Your task to perform on an android device: turn on the 12-hour format for clock Image 0: 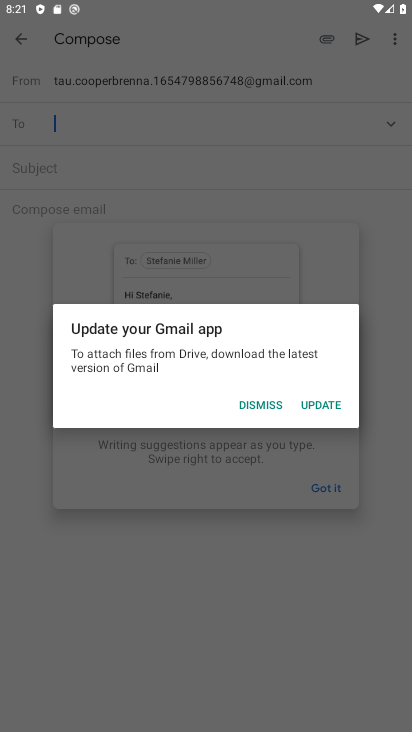
Step 0: press home button
Your task to perform on an android device: turn on the 12-hour format for clock Image 1: 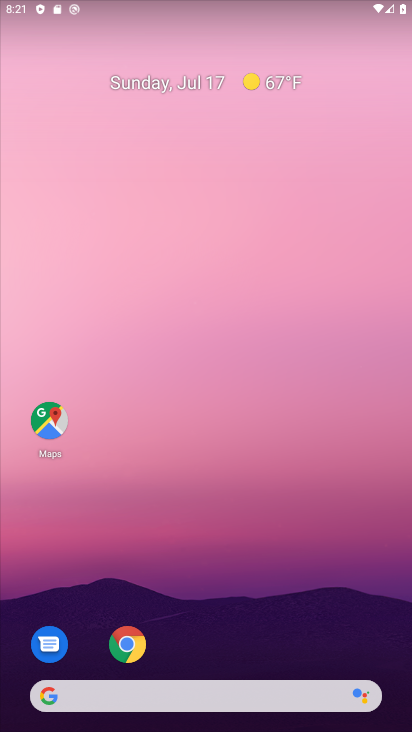
Step 1: drag from (266, 572) to (187, 173)
Your task to perform on an android device: turn on the 12-hour format for clock Image 2: 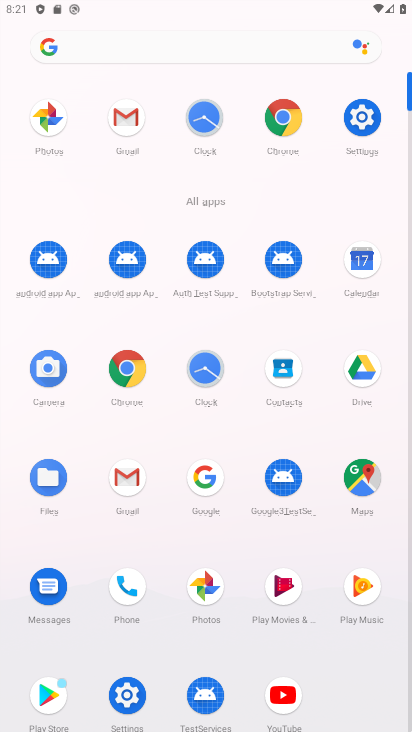
Step 2: click (189, 116)
Your task to perform on an android device: turn on the 12-hour format for clock Image 3: 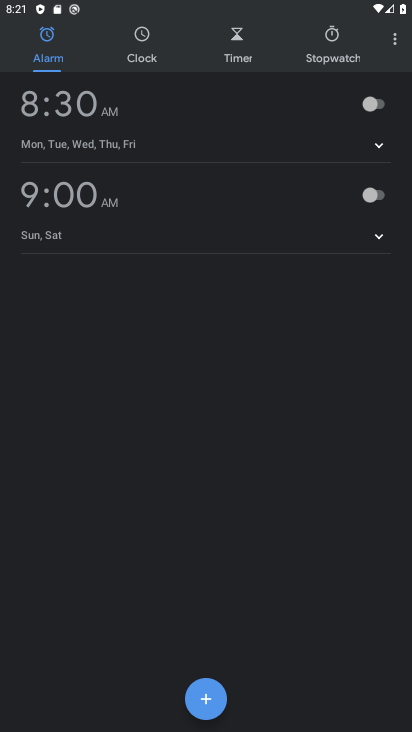
Step 3: click (393, 45)
Your task to perform on an android device: turn on the 12-hour format for clock Image 4: 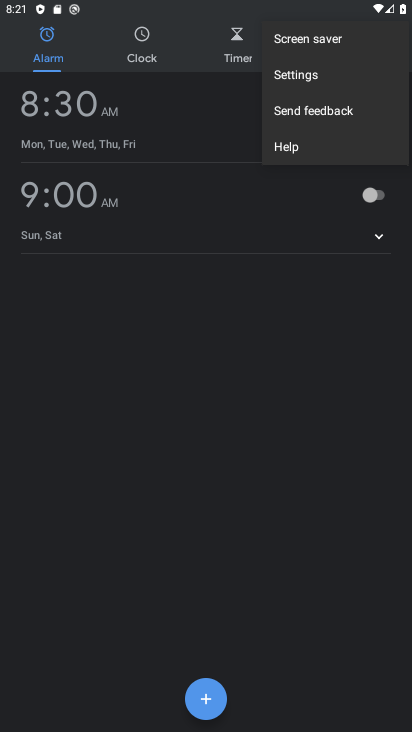
Step 4: click (319, 77)
Your task to perform on an android device: turn on the 12-hour format for clock Image 5: 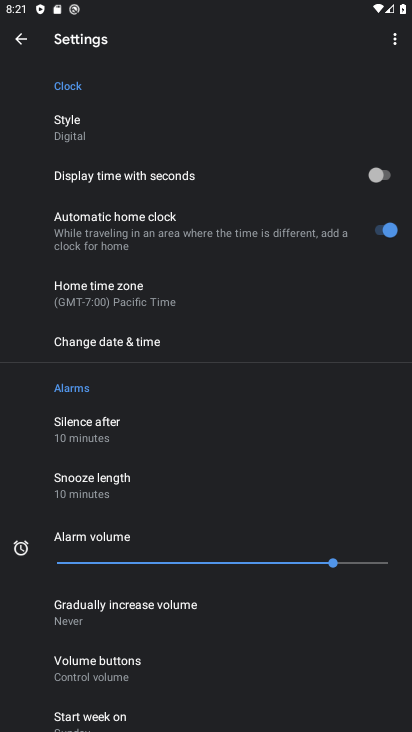
Step 5: click (117, 337)
Your task to perform on an android device: turn on the 12-hour format for clock Image 6: 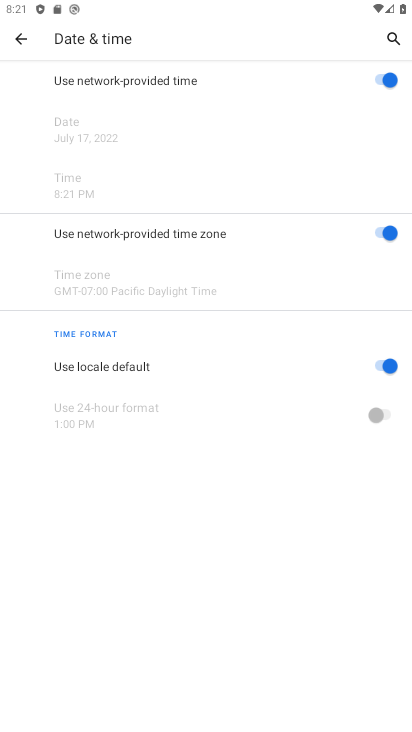
Step 6: click (376, 415)
Your task to perform on an android device: turn on the 12-hour format for clock Image 7: 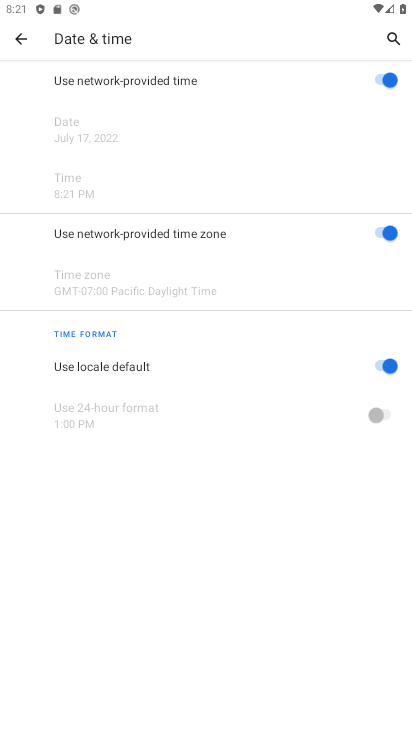
Step 7: task complete